Your task to perform on an android device: Set the phone to "Do not disturb". Image 0: 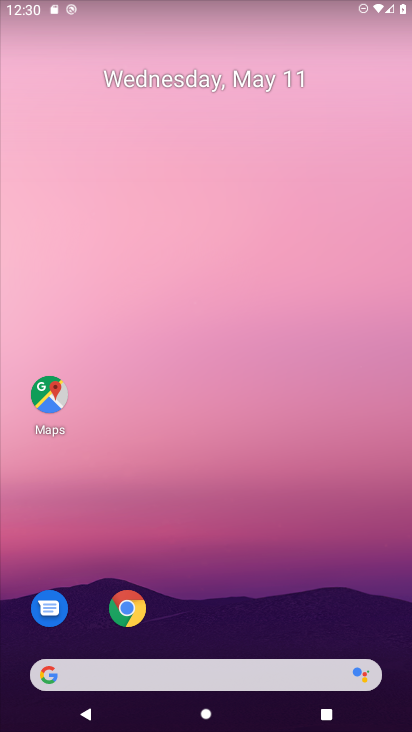
Step 0: drag from (354, 550) to (360, 1)
Your task to perform on an android device: Set the phone to "Do not disturb". Image 1: 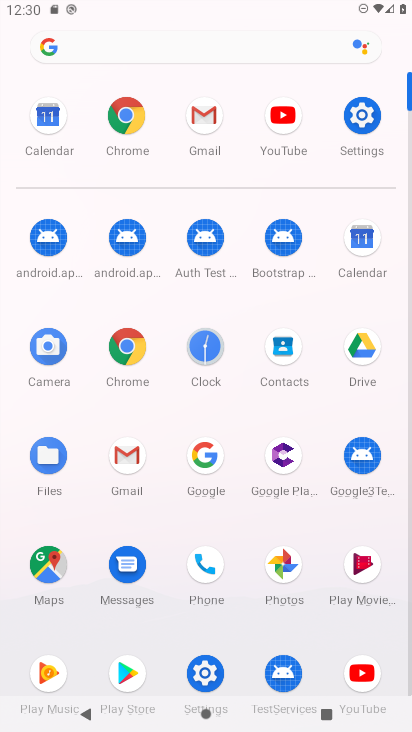
Step 1: click (362, 115)
Your task to perform on an android device: Set the phone to "Do not disturb". Image 2: 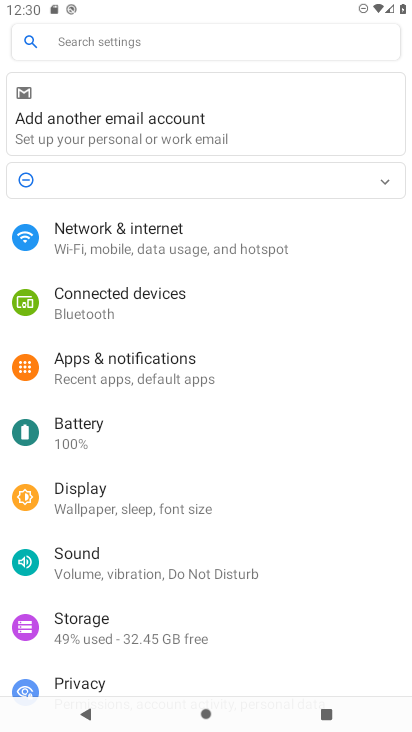
Step 2: click (201, 563)
Your task to perform on an android device: Set the phone to "Do not disturb". Image 3: 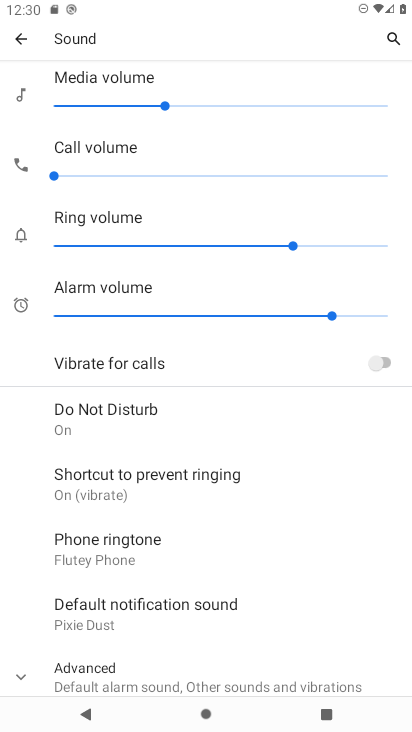
Step 3: task complete